Your task to perform on an android device: check out phone information Image 0: 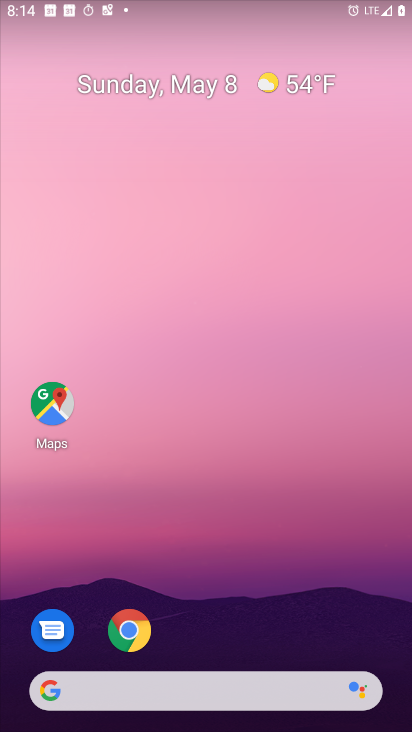
Step 0: drag from (214, 663) to (165, 5)
Your task to perform on an android device: check out phone information Image 1: 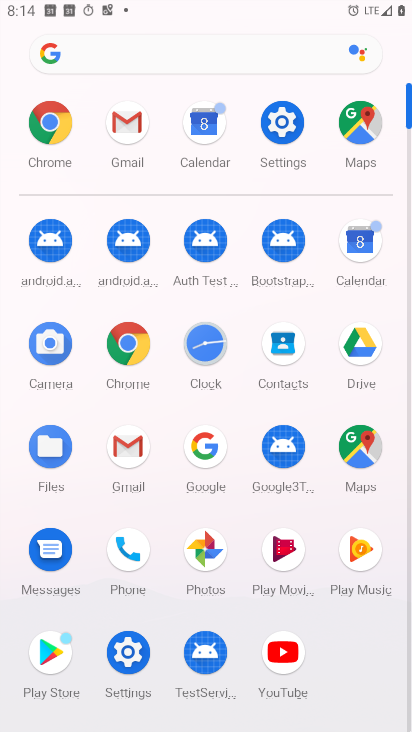
Step 1: click (280, 126)
Your task to perform on an android device: check out phone information Image 2: 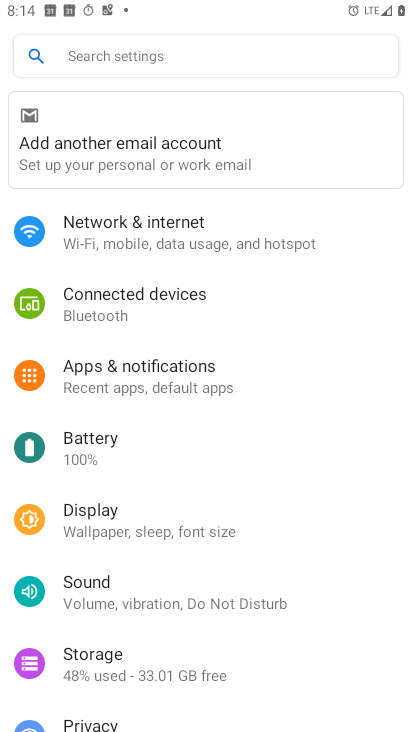
Step 2: drag from (319, 556) to (230, 7)
Your task to perform on an android device: check out phone information Image 3: 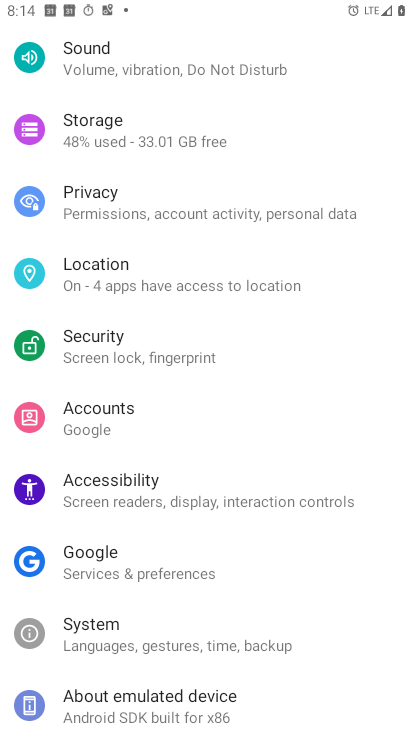
Step 3: click (191, 700)
Your task to perform on an android device: check out phone information Image 4: 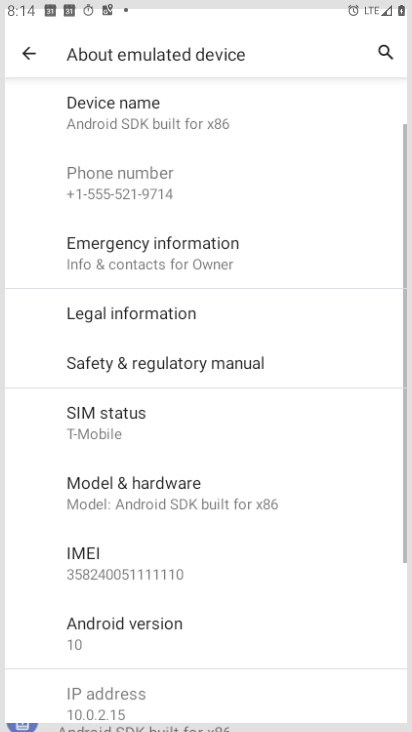
Step 4: task complete